Your task to perform on an android device: turn on bluetooth scan Image 0: 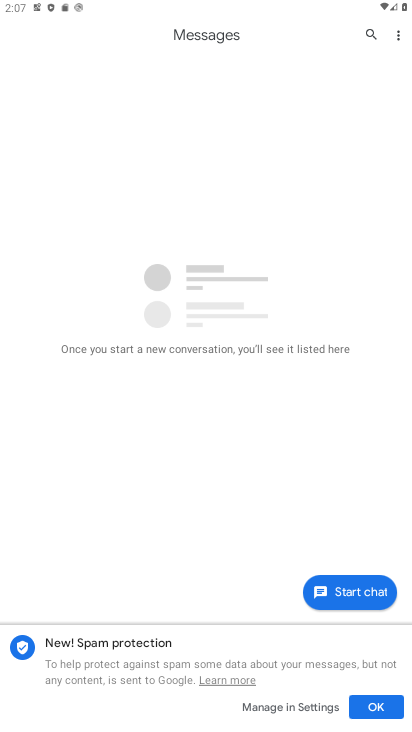
Step 0: press home button
Your task to perform on an android device: turn on bluetooth scan Image 1: 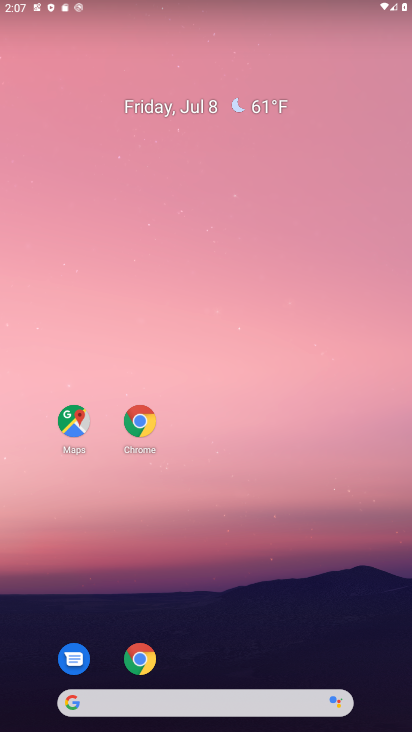
Step 1: drag from (187, 629) to (168, 10)
Your task to perform on an android device: turn on bluetooth scan Image 2: 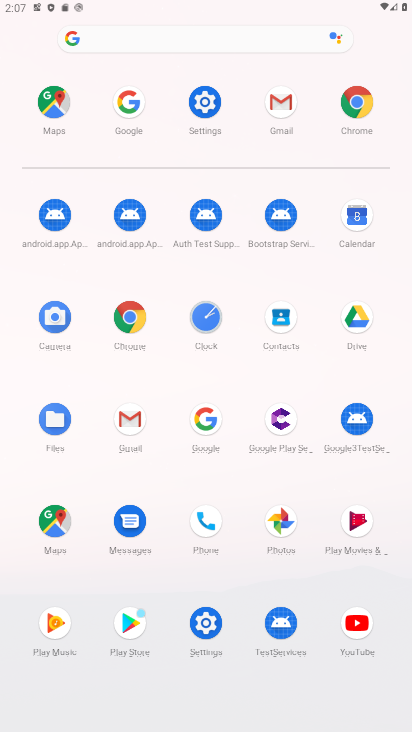
Step 2: click (200, 139)
Your task to perform on an android device: turn on bluetooth scan Image 3: 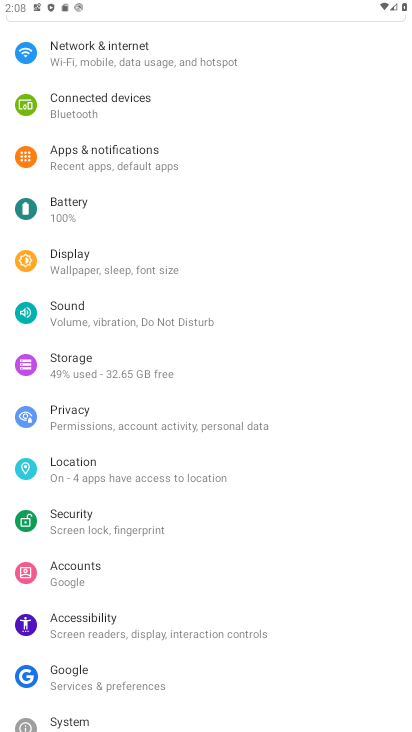
Step 3: click (98, 462)
Your task to perform on an android device: turn on bluetooth scan Image 4: 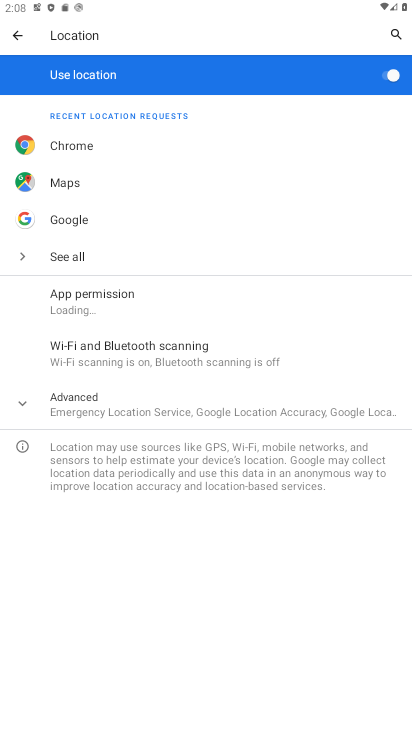
Step 4: click (120, 357)
Your task to perform on an android device: turn on bluetooth scan Image 5: 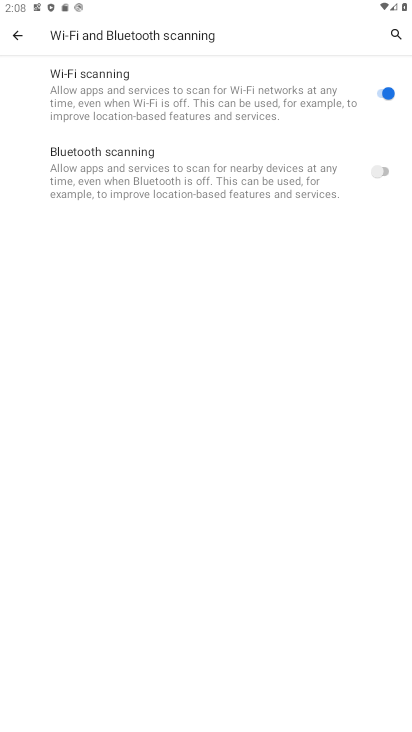
Step 5: click (374, 179)
Your task to perform on an android device: turn on bluetooth scan Image 6: 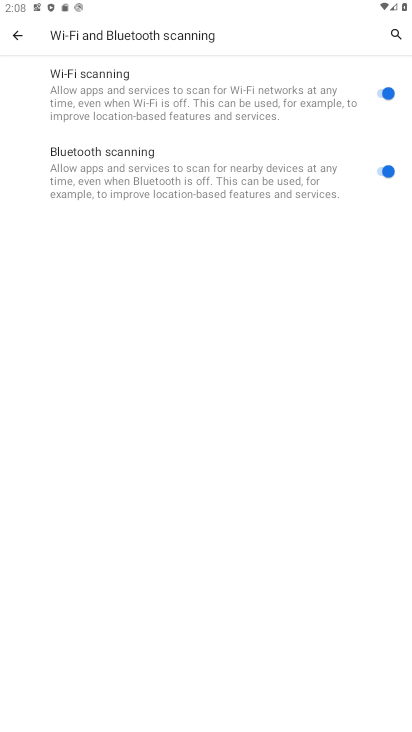
Step 6: task complete